Your task to perform on an android device: Go to sound settings Image 0: 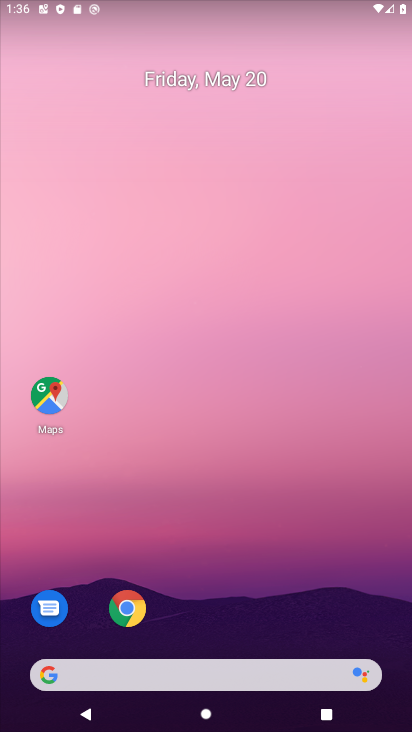
Step 0: drag from (192, 638) to (267, 153)
Your task to perform on an android device: Go to sound settings Image 1: 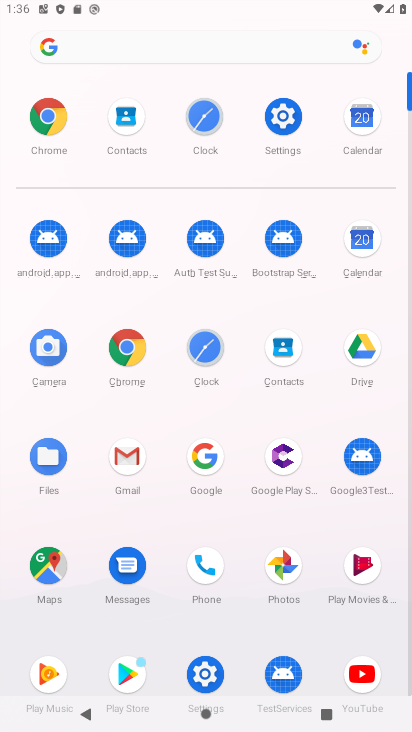
Step 1: click (275, 123)
Your task to perform on an android device: Go to sound settings Image 2: 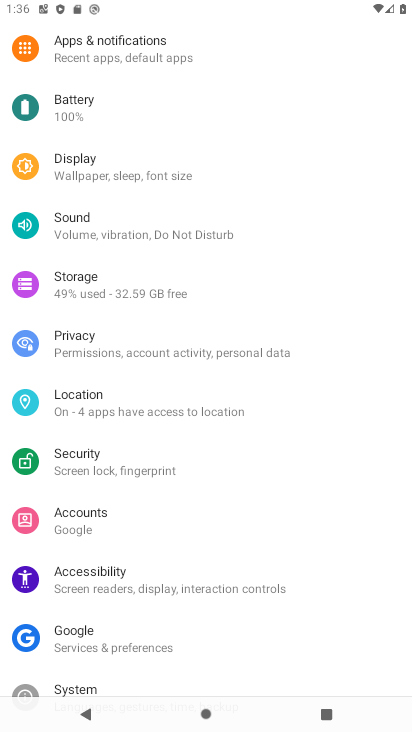
Step 2: click (60, 230)
Your task to perform on an android device: Go to sound settings Image 3: 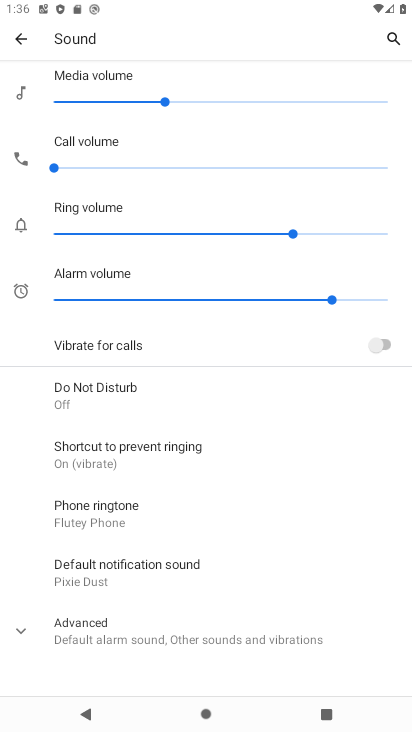
Step 3: task complete